Your task to perform on an android device: stop showing notifications on the lock screen Image 0: 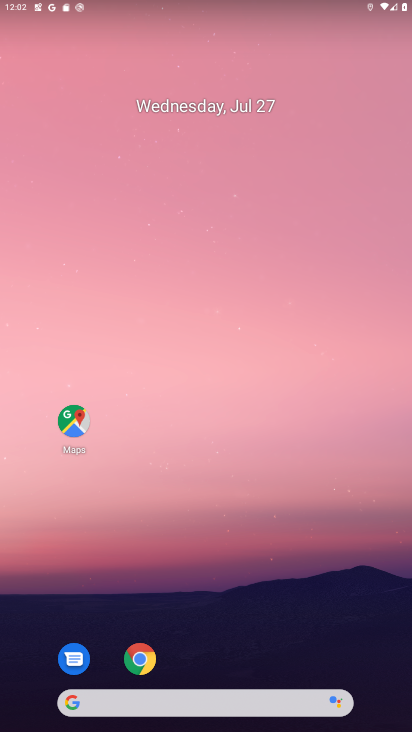
Step 0: drag from (283, 694) to (253, 2)
Your task to perform on an android device: stop showing notifications on the lock screen Image 1: 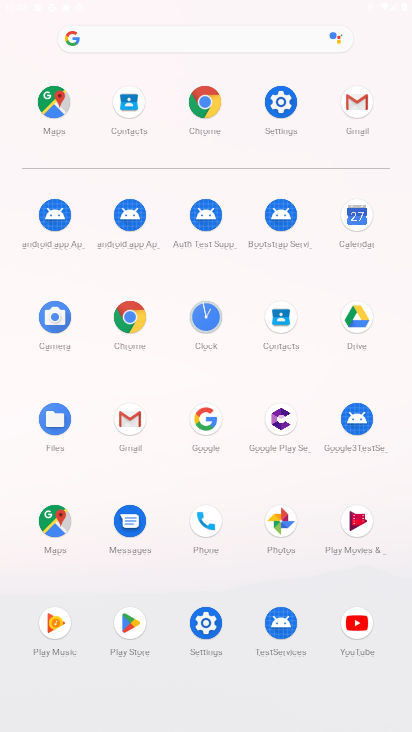
Step 1: click (271, 95)
Your task to perform on an android device: stop showing notifications on the lock screen Image 2: 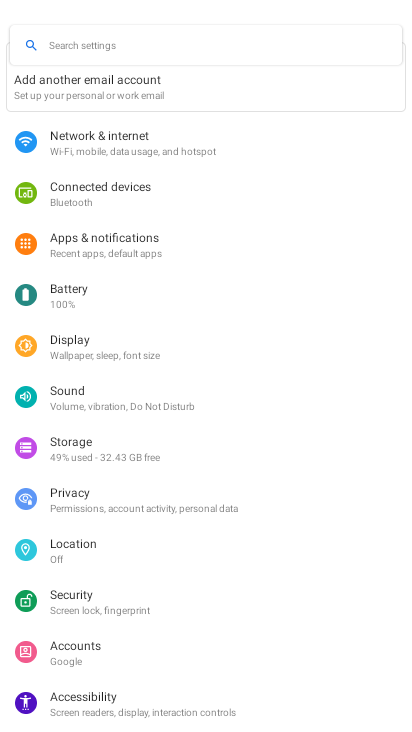
Step 2: click (129, 228)
Your task to perform on an android device: stop showing notifications on the lock screen Image 3: 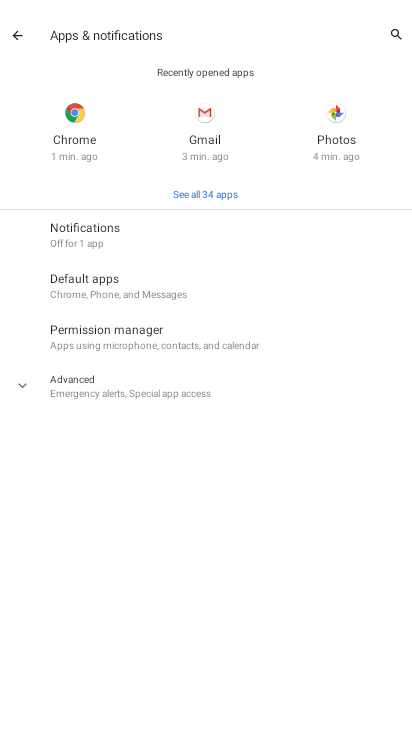
Step 3: click (103, 244)
Your task to perform on an android device: stop showing notifications on the lock screen Image 4: 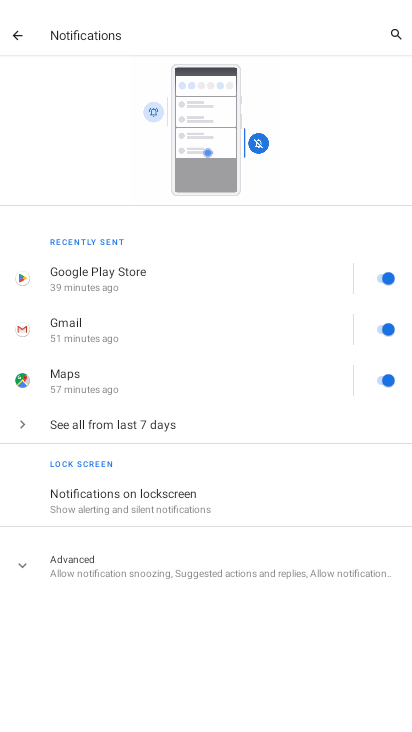
Step 4: click (160, 488)
Your task to perform on an android device: stop showing notifications on the lock screen Image 5: 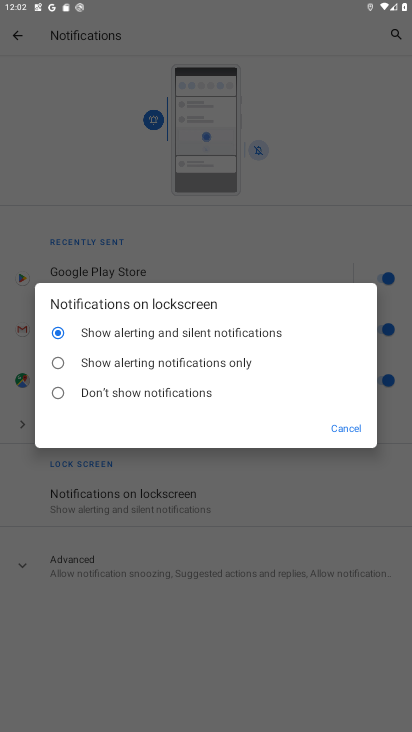
Step 5: click (64, 393)
Your task to perform on an android device: stop showing notifications on the lock screen Image 6: 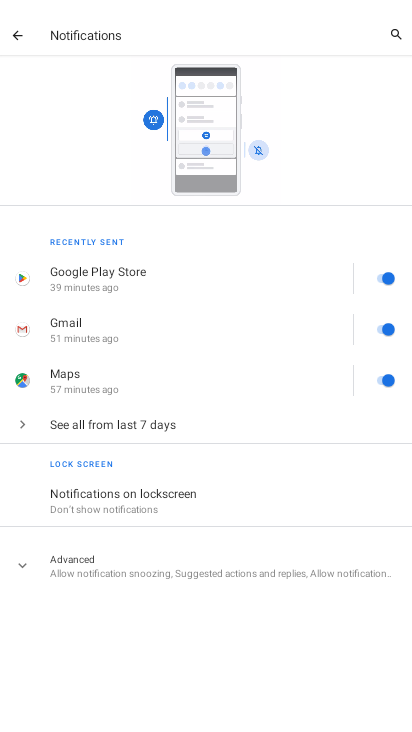
Step 6: task complete